Your task to perform on an android device: toggle javascript in the chrome app Image 0: 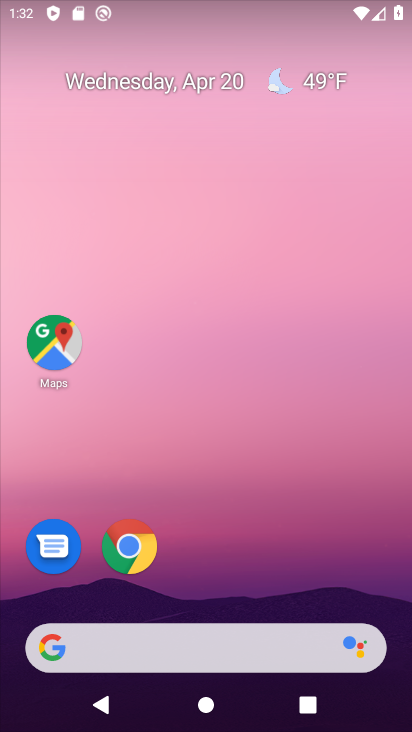
Step 0: click (124, 549)
Your task to perform on an android device: toggle javascript in the chrome app Image 1: 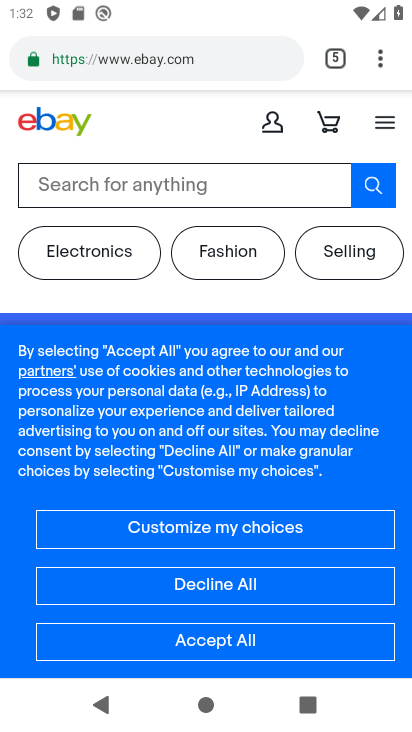
Step 1: click (374, 59)
Your task to perform on an android device: toggle javascript in the chrome app Image 2: 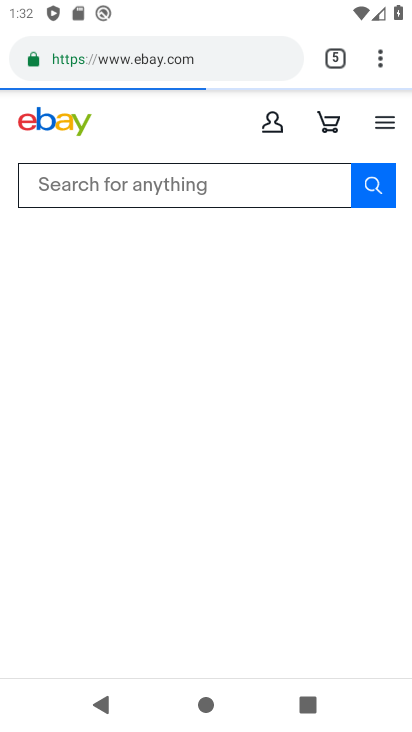
Step 2: drag from (378, 62) to (181, 574)
Your task to perform on an android device: toggle javascript in the chrome app Image 3: 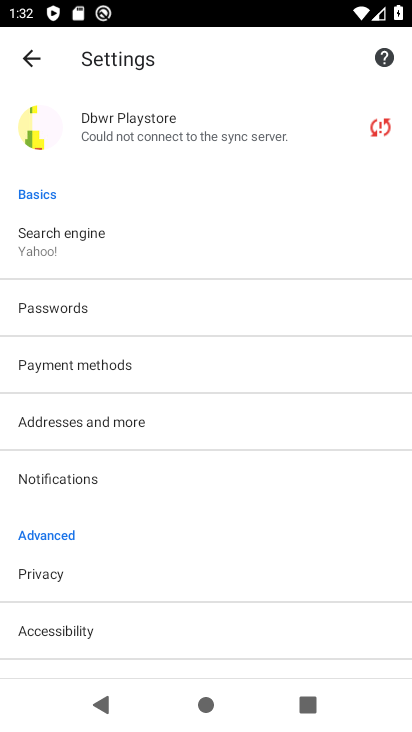
Step 3: drag from (91, 606) to (177, 228)
Your task to perform on an android device: toggle javascript in the chrome app Image 4: 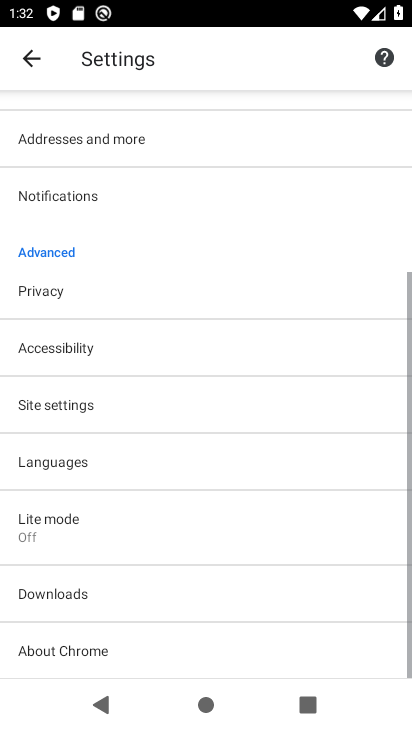
Step 4: click (86, 403)
Your task to perform on an android device: toggle javascript in the chrome app Image 5: 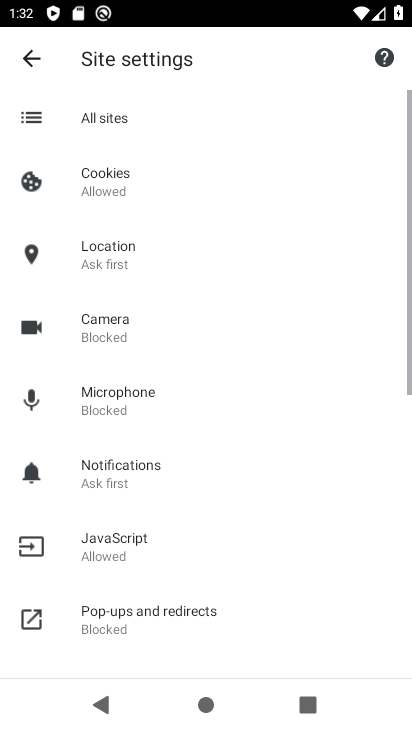
Step 5: click (147, 562)
Your task to perform on an android device: toggle javascript in the chrome app Image 6: 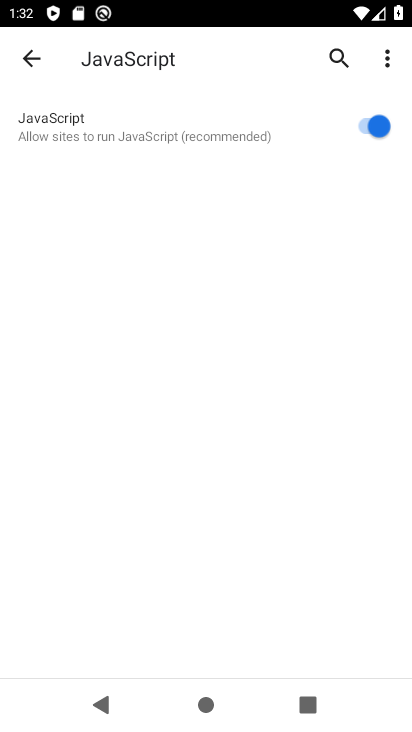
Step 6: click (375, 119)
Your task to perform on an android device: toggle javascript in the chrome app Image 7: 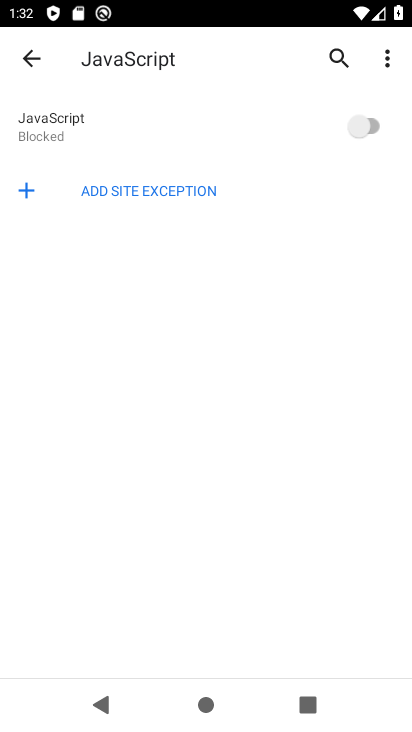
Step 7: task complete